Your task to perform on an android device: turn off sleep mode Image 0: 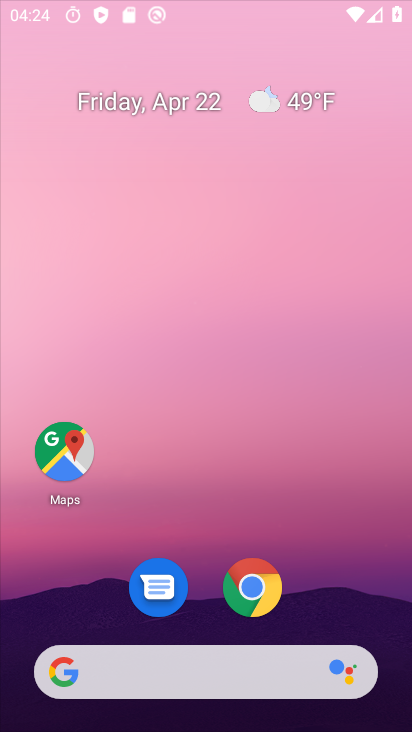
Step 0: drag from (374, 166) to (389, 12)
Your task to perform on an android device: turn off sleep mode Image 1: 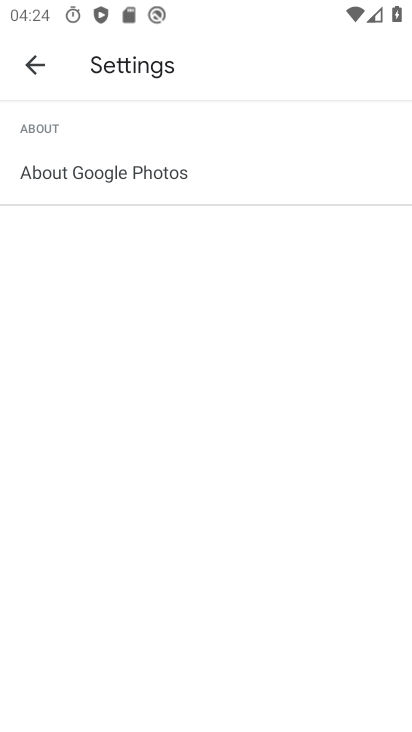
Step 1: press home button
Your task to perform on an android device: turn off sleep mode Image 2: 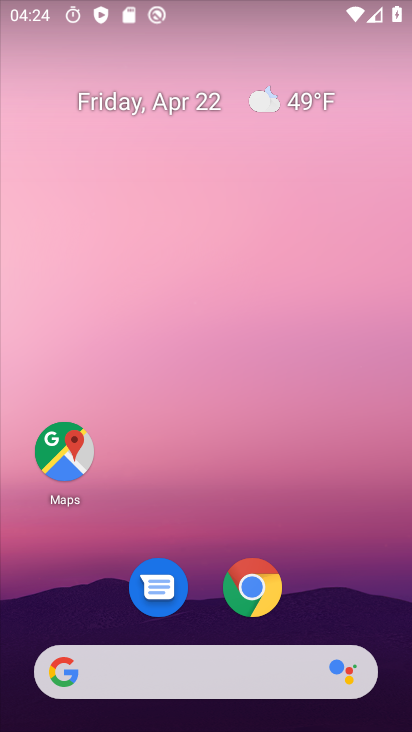
Step 2: drag from (343, 525) to (364, 15)
Your task to perform on an android device: turn off sleep mode Image 3: 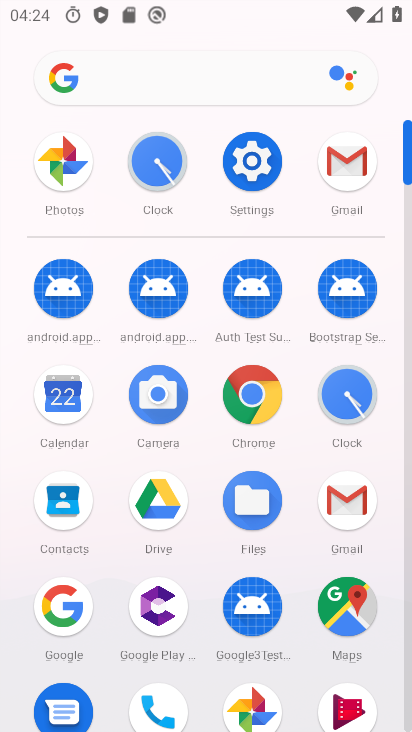
Step 3: click (250, 164)
Your task to perform on an android device: turn off sleep mode Image 4: 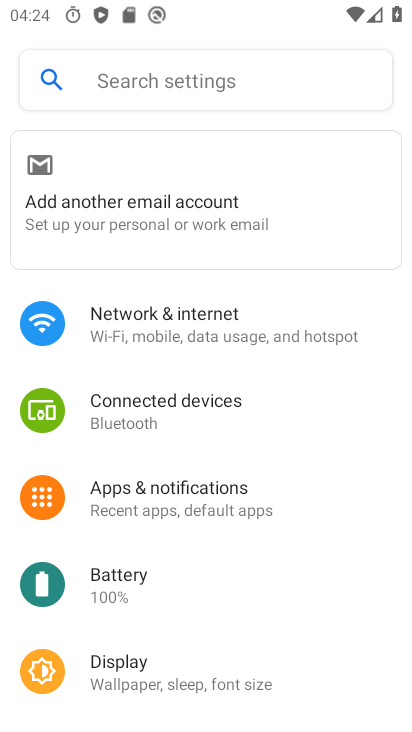
Step 4: click (134, 679)
Your task to perform on an android device: turn off sleep mode Image 5: 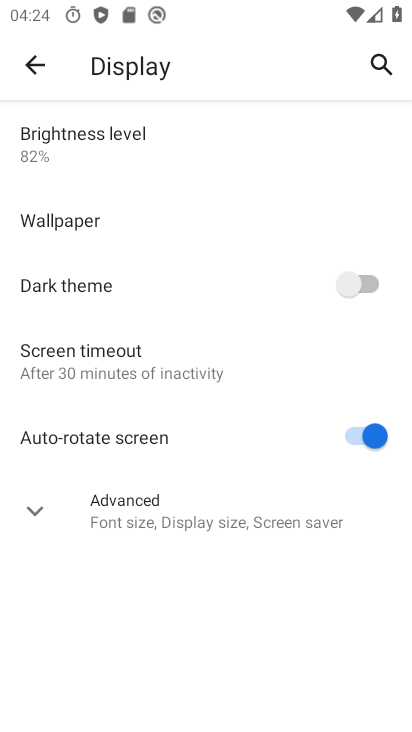
Step 5: click (33, 511)
Your task to perform on an android device: turn off sleep mode Image 6: 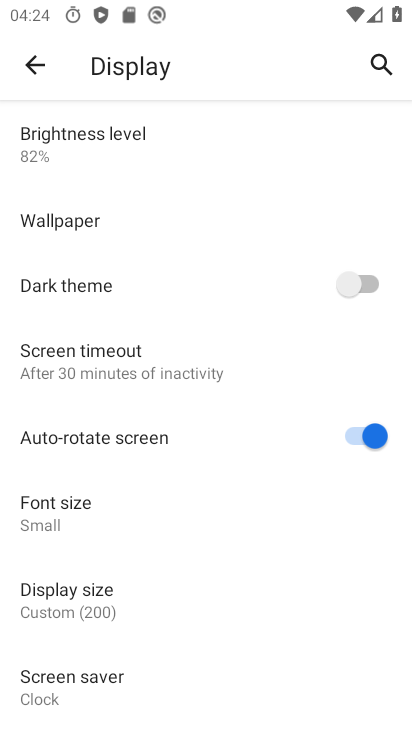
Step 6: task complete